Your task to perform on an android device: Open the map Image 0: 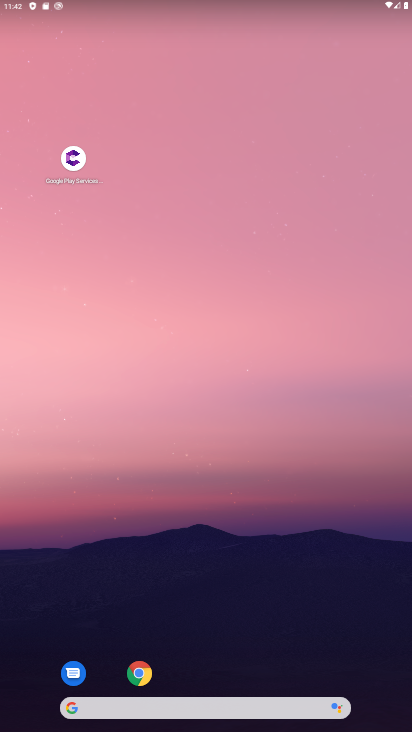
Step 0: drag from (251, 645) to (216, 80)
Your task to perform on an android device: Open the map Image 1: 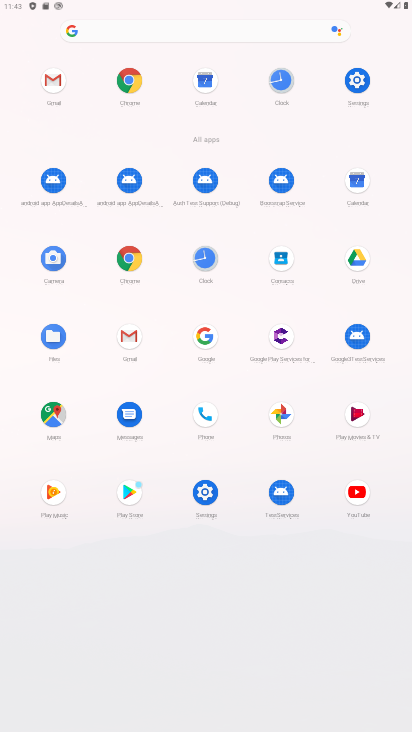
Step 1: click (52, 414)
Your task to perform on an android device: Open the map Image 2: 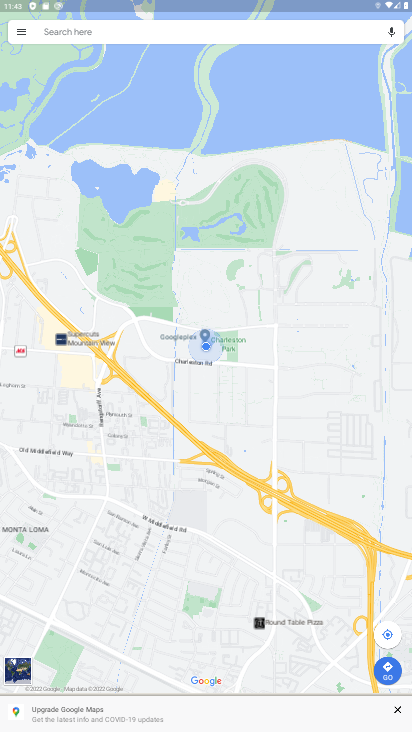
Step 2: task complete